Your task to perform on an android device: turn off location Image 0: 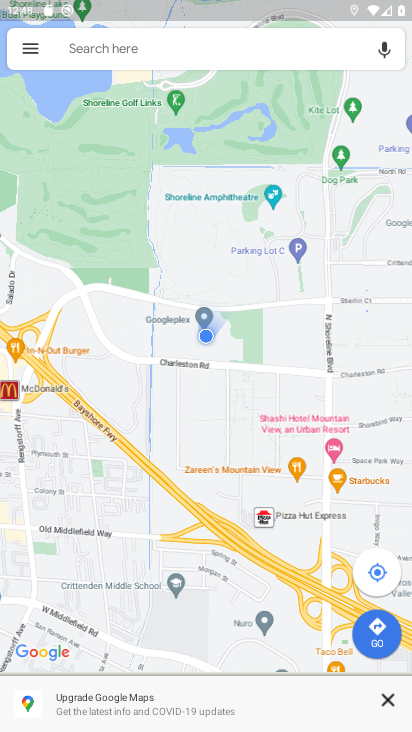
Step 0: press home button
Your task to perform on an android device: turn off location Image 1: 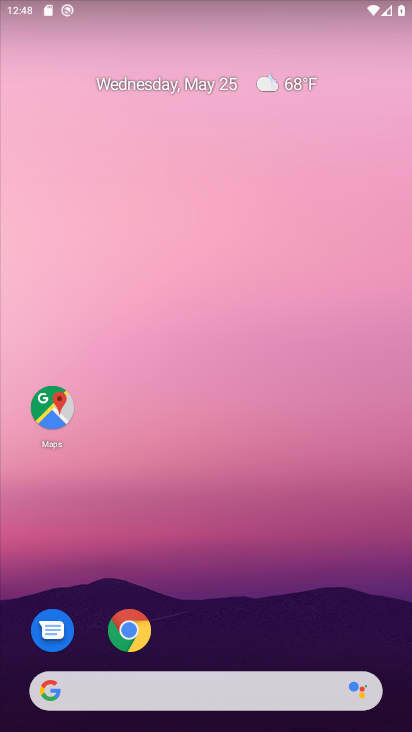
Step 1: drag from (224, 583) to (224, 216)
Your task to perform on an android device: turn off location Image 2: 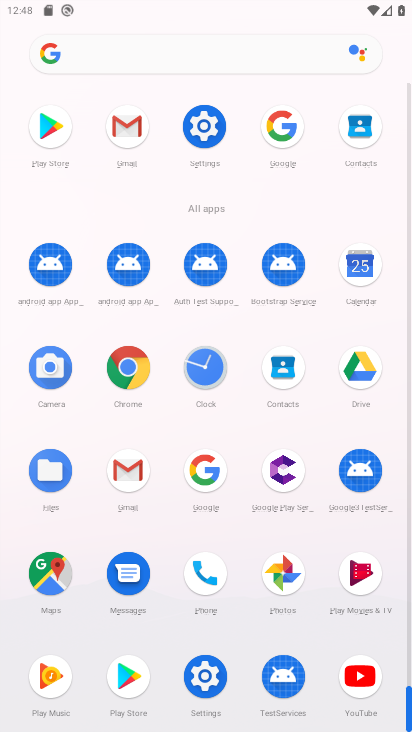
Step 2: click (216, 145)
Your task to perform on an android device: turn off location Image 3: 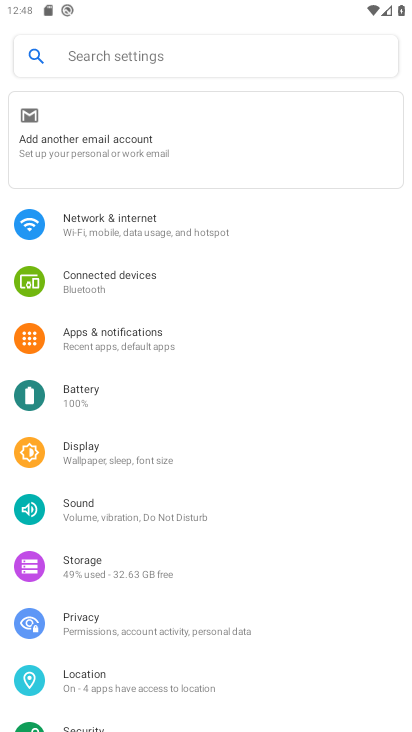
Step 3: click (172, 665)
Your task to perform on an android device: turn off location Image 4: 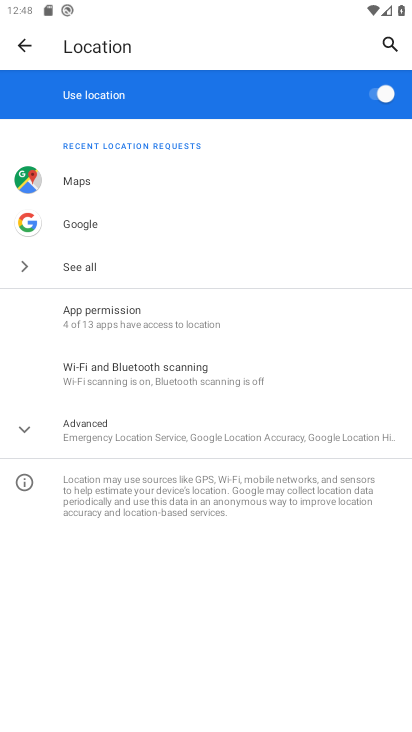
Step 4: click (363, 93)
Your task to perform on an android device: turn off location Image 5: 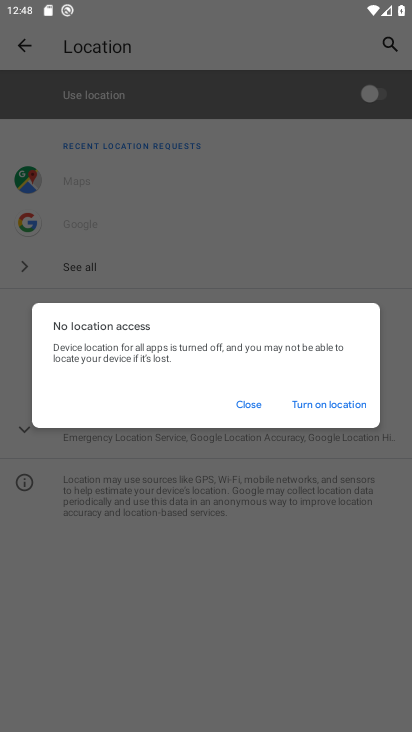
Step 5: task complete